Your task to perform on an android device: Search for a new eyeliner Image 0: 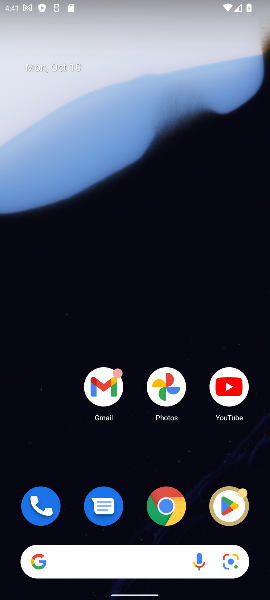
Step 0: drag from (139, 558) to (157, 204)
Your task to perform on an android device: Search for a new eyeliner Image 1: 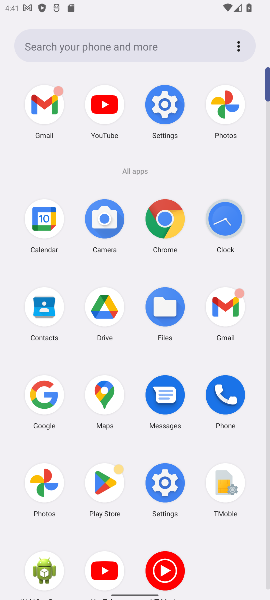
Step 1: click (45, 396)
Your task to perform on an android device: Search for a new eyeliner Image 2: 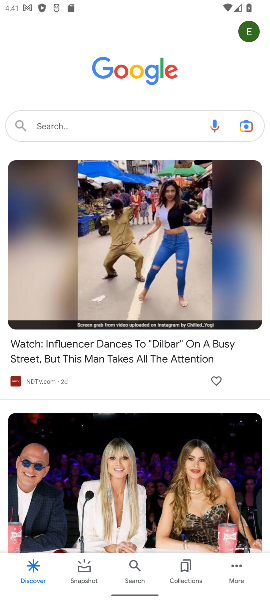
Step 2: click (66, 117)
Your task to perform on an android device: Search for a new eyeliner Image 3: 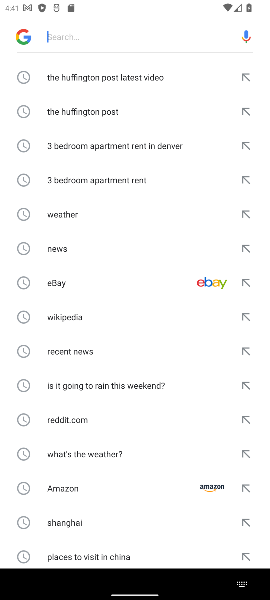
Step 3: type "Search for a new eyeliner"
Your task to perform on an android device: Search for a new eyeliner Image 4: 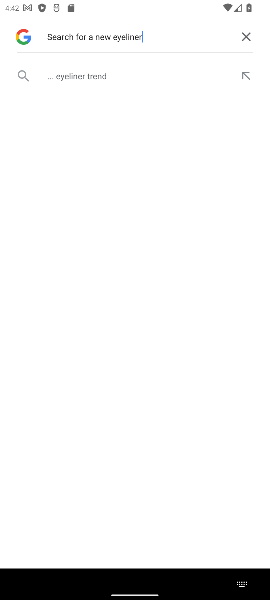
Step 4: click (92, 84)
Your task to perform on an android device: Search for a new eyeliner Image 5: 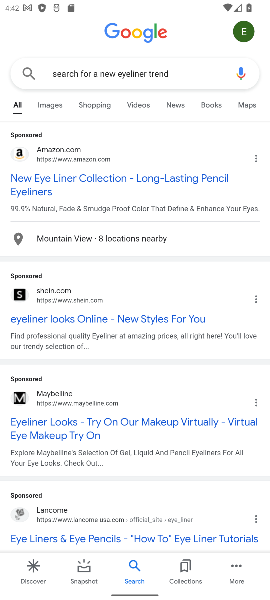
Step 5: click (48, 185)
Your task to perform on an android device: Search for a new eyeliner Image 6: 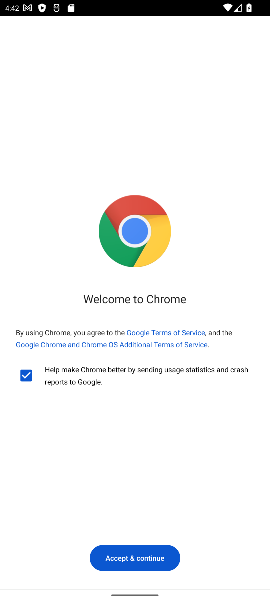
Step 6: click (133, 558)
Your task to perform on an android device: Search for a new eyeliner Image 7: 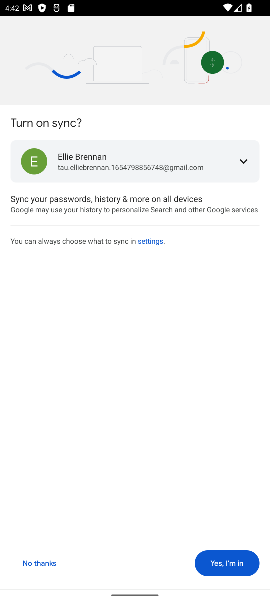
Step 7: click (251, 559)
Your task to perform on an android device: Search for a new eyeliner Image 8: 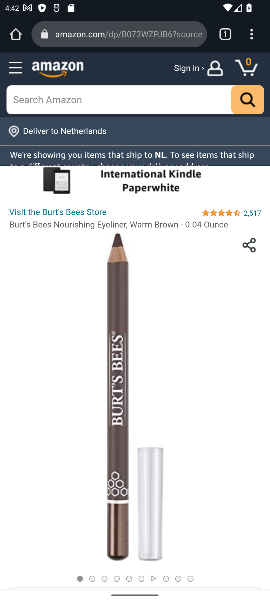
Step 8: task complete